Your task to perform on an android device: When is my next appointment? Image 0: 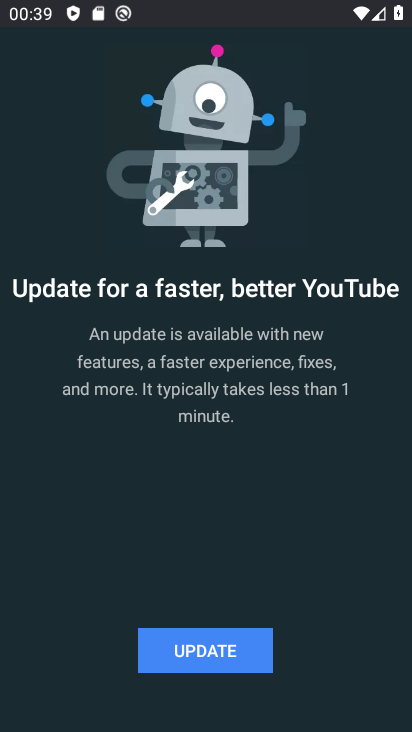
Step 0: press back button
Your task to perform on an android device: When is my next appointment? Image 1: 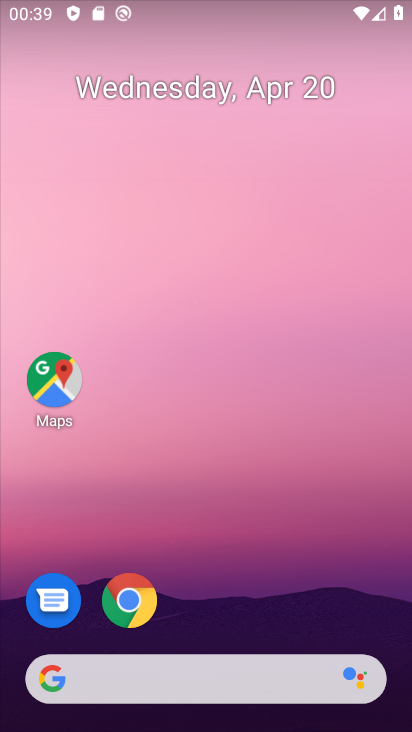
Step 1: drag from (386, 587) to (381, 76)
Your task to perform on an android device: When is my next appointment? Image 2: 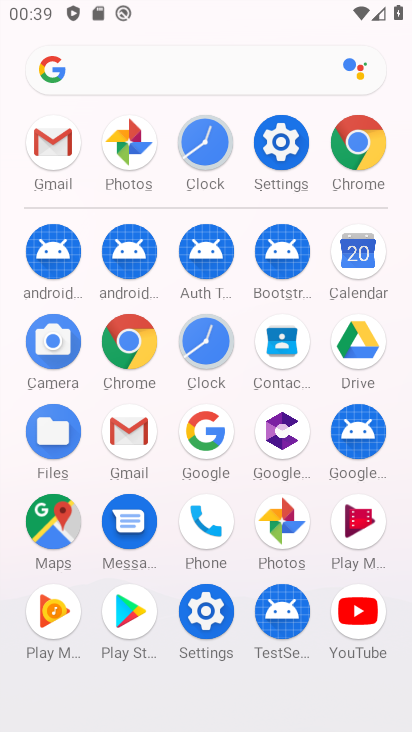
Step 2: drag from (7, 549) to (16, 390)
Your task to perform on an android device: When is my next appointment? Image 3: 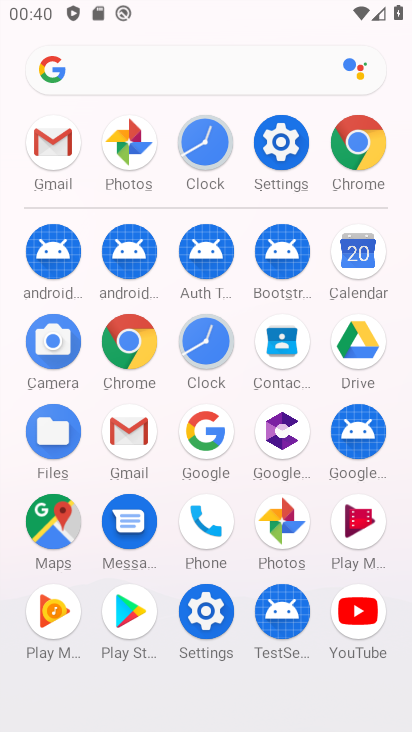
Step 3: drag from (10, 288) to (10, 482)
Your task to perform on an android device: When is my next appointment? Image 4: 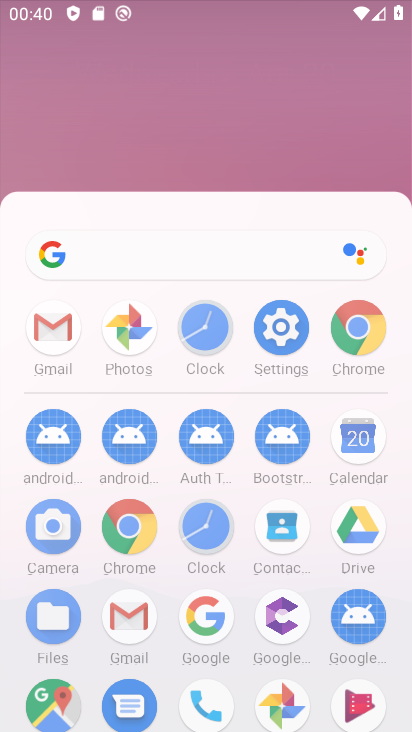
Step 4: drag from (27, 483) to (33, 280)
Your task to perform on an android device: When is my next appointment? Image 5: 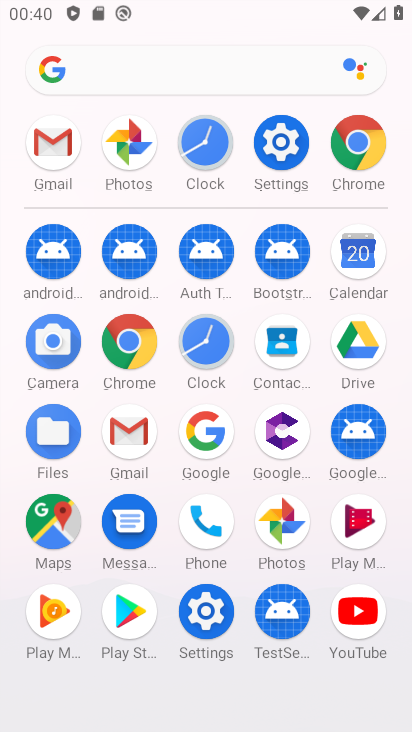
Step 5: drag from (14, 259) to (20, 217)
Your task to perform on an android device: When is my next appointment? Image 6: 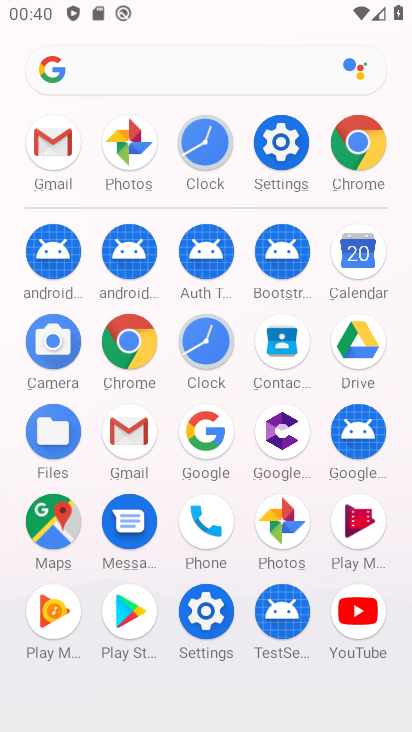
Step 6: drag from (2, 507) to (11, 255)
Your task to perform on an android device: When is my next appointment? Image 7: 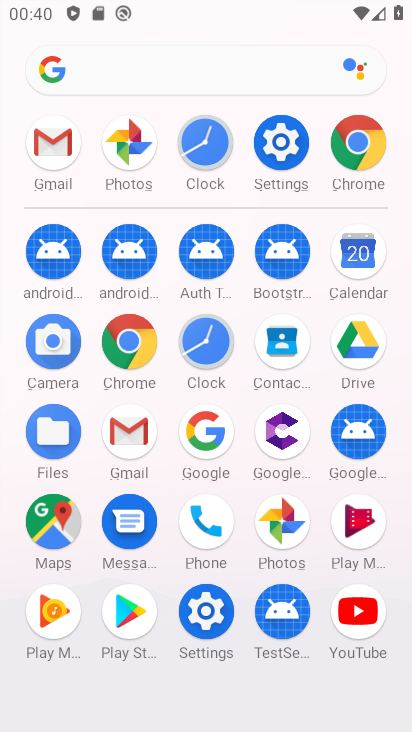
Step 7: drag from (375, 204) to (10, 247)
Your task to perform on an android device: When is my next appointment? Image 8: 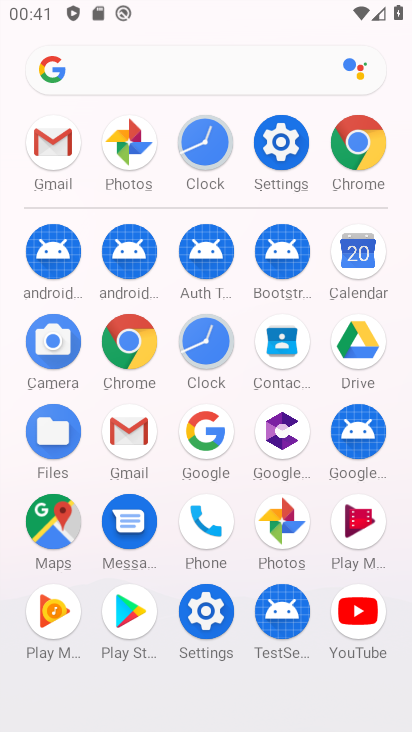
Step 8: drag from (10, 652) to (12, 420)
Your task to perform on an android device: When is my next appointment? Image 9: 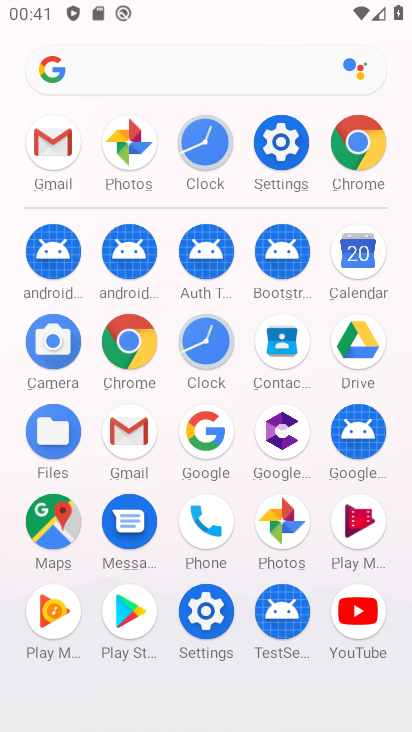
Step 9: click (380, 249)
Your task to perform on an android device: When is my next appointment? Image 10: 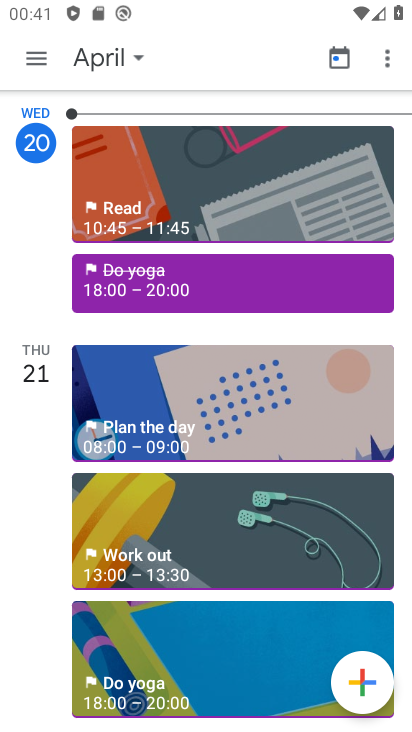
Step 10: click (39, 50)
Your task to perform on an android device: When is my next appointment? Image 11: 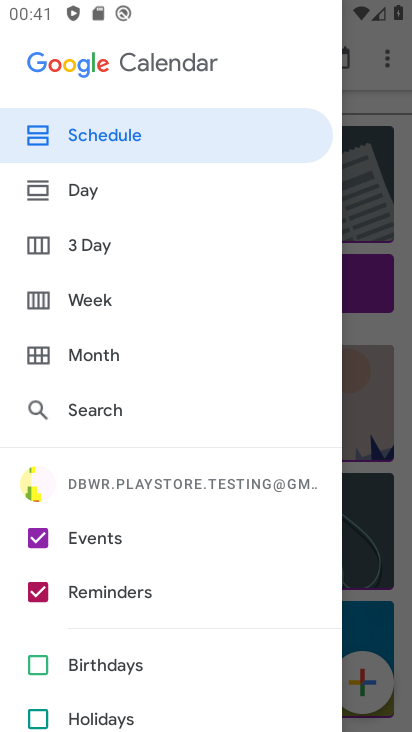
Step 11: click (42, 526)
Your task to perform on an android device: When is my next appointment? Image 12: 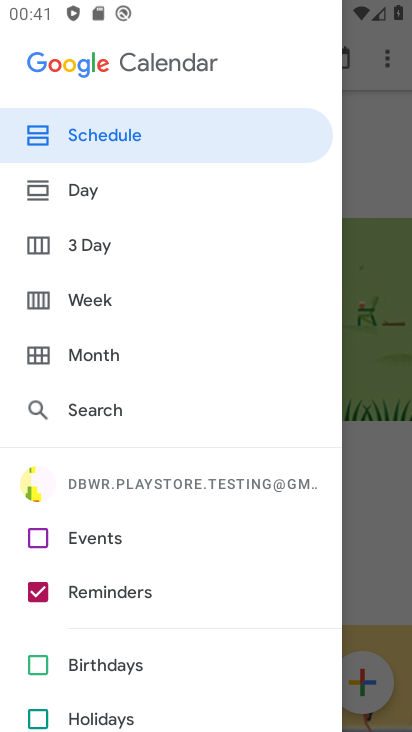
Step 12: click (394, 144)
Your task to perform on an android device: When is my next appointment? Image 13: 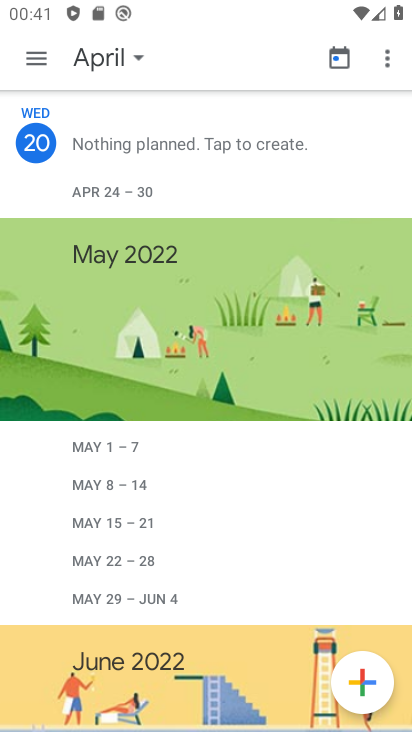
Step 13: task complete